Your task to perform on an android device: set an alarm Image 0: 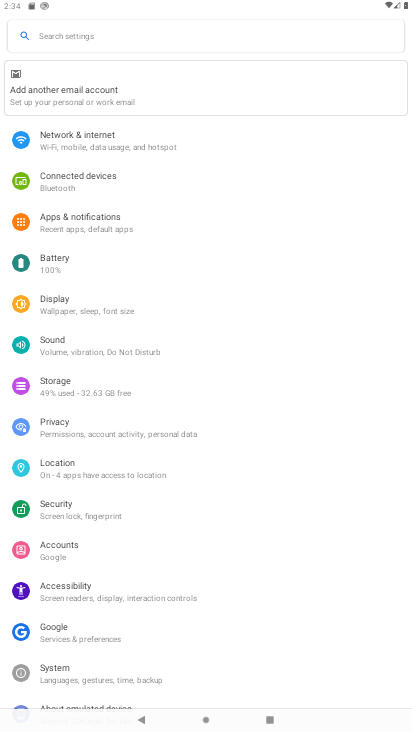
Step 0: press home button
Your task to perform on an android device: set an alarm Image 1: 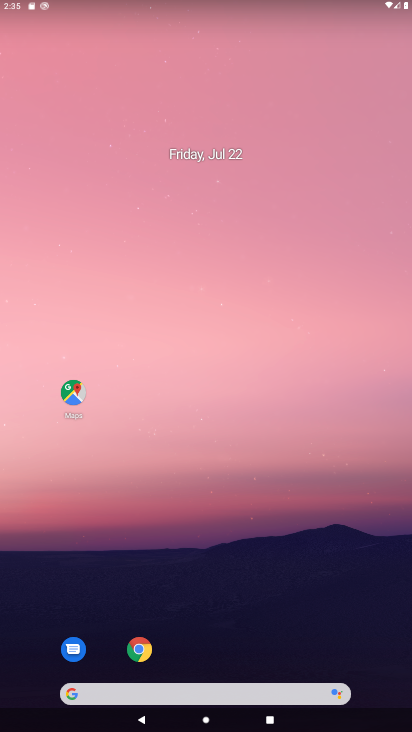
Step 1: drag from (234, 724) to (238, 151)
Your task to perform on an android device: set an alarm Image 2: 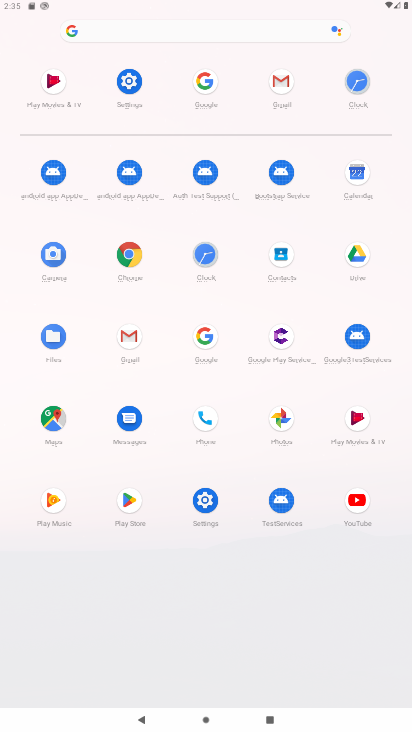
Step 2: click (200, 254)
Your task to perform on an android device: set an alarm Image 3: 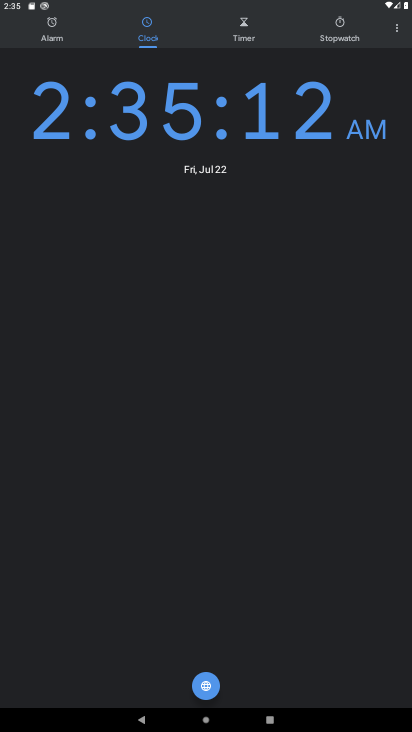
Step 3: click (47, 32)
Your task to perform on an android device: set an alarm Image 4: 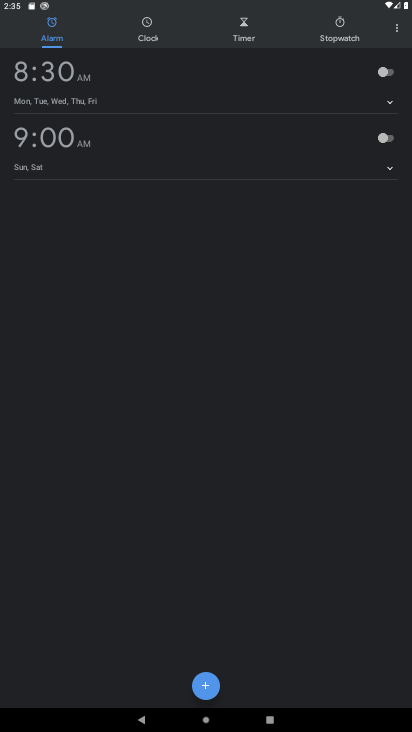
Step 4: click (203, 690)
Your task to perform on an android device: set an alarm Image 5: 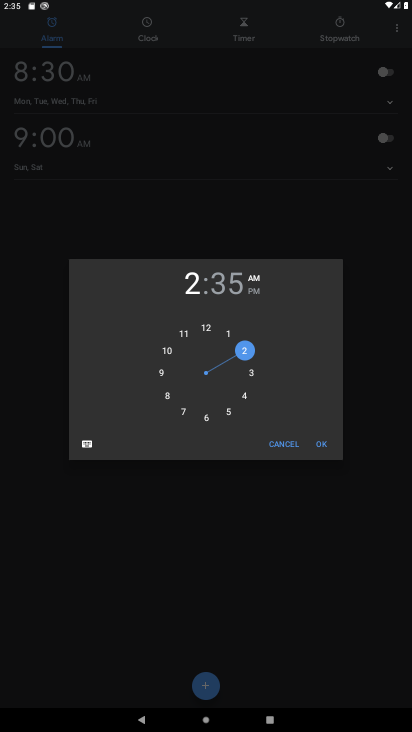
Step 5: click (210, 416)
Your task to perform on an android device: set an alarm Image 6: 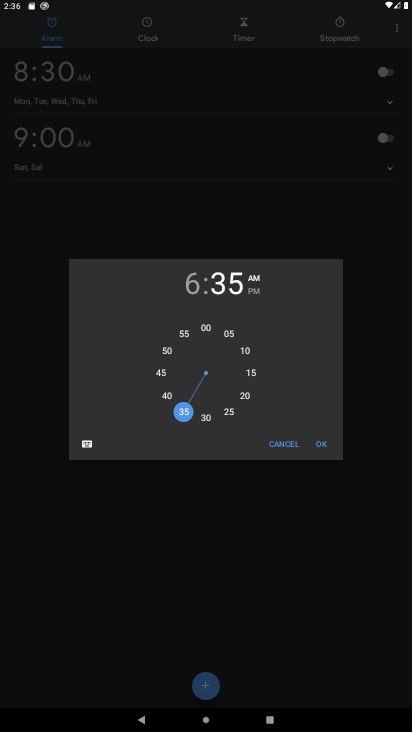
Step 6: click (322, 446)
Your task to perform on an android device: set an alarm Image 7: 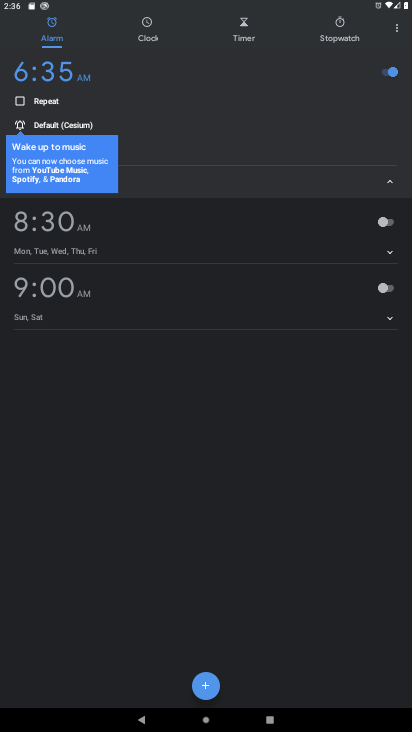
Step 7: task complete